Your task to perform on an android device: toggle show notifications on the lock screen Image 0: 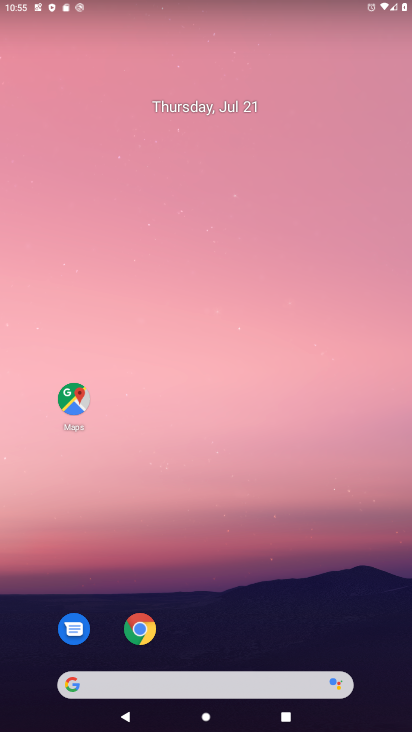
Step 0: drag from (207, 616) to (333, 8)
Your task to perform on an android device: toggle show notifications on the lock screen Image 1: 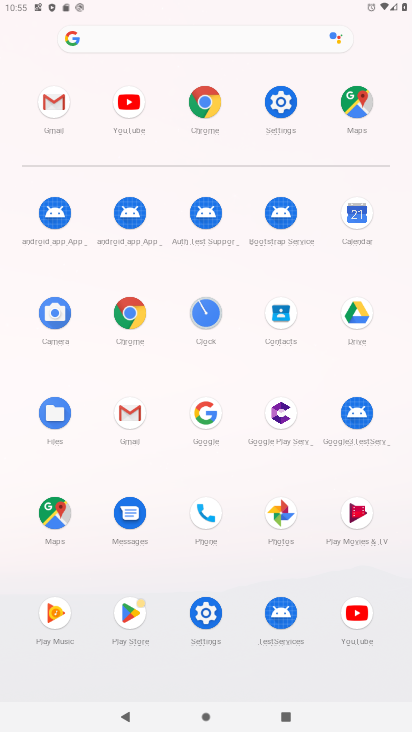
Step 1: click (287, 82)
Your task to perform on an android device: toggle show notifications on the lock screen Image 2: 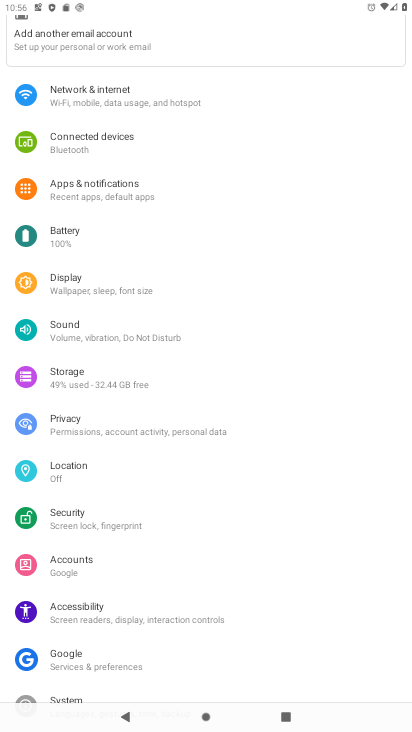
Step 2: click (121, 183)
Your task to perform on an android device: toggle show notifications on the lock screen Image 3: 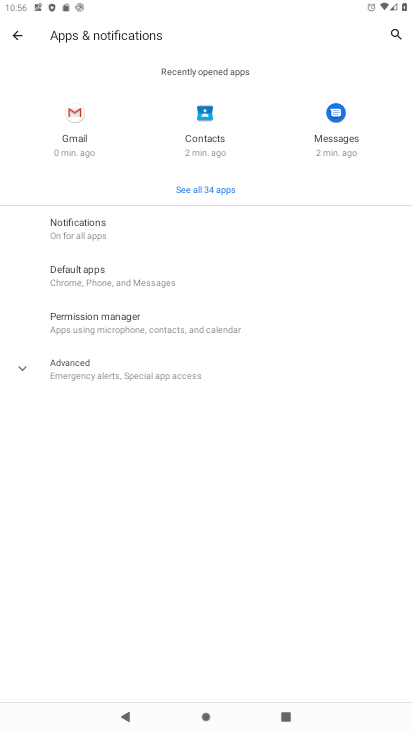
Step 3: click (141, 220)
Your task to perform on an android device: toggle show notifications on the lock screen Image 4: 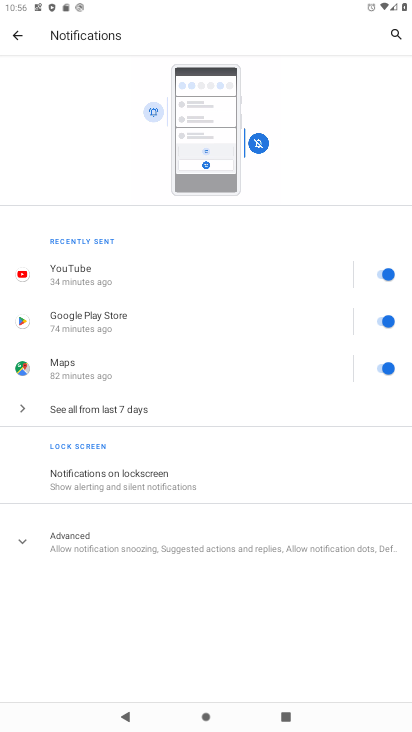
Step 4: click (197, 480)
Your task to perform on an android device: toggle show notifications on the lock screen Image 5: 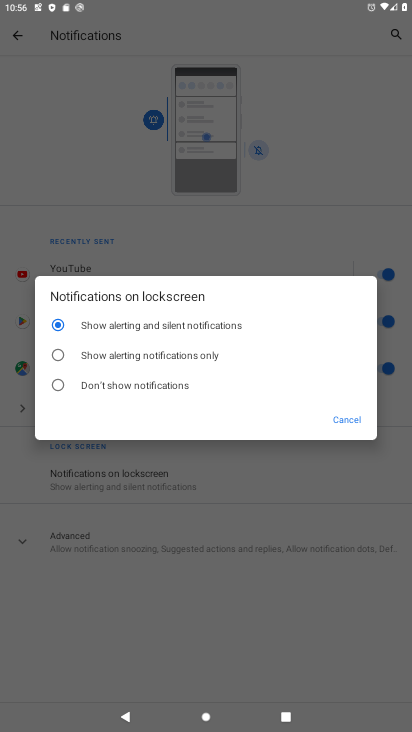
Step 5: click (197, 361)
Your task to perform on an android device: toggle show notifications on the lock screen Image 6: 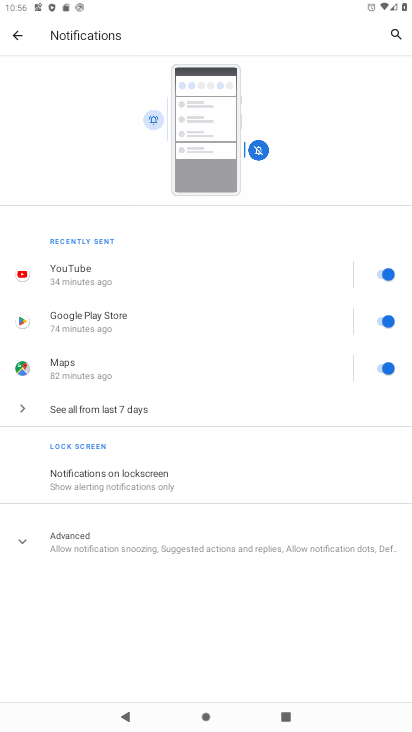
Step 6: task complete